Your task to perform on an android device: open app "Pandora - Music & Podcasts" (install if not already installed) Image 0: 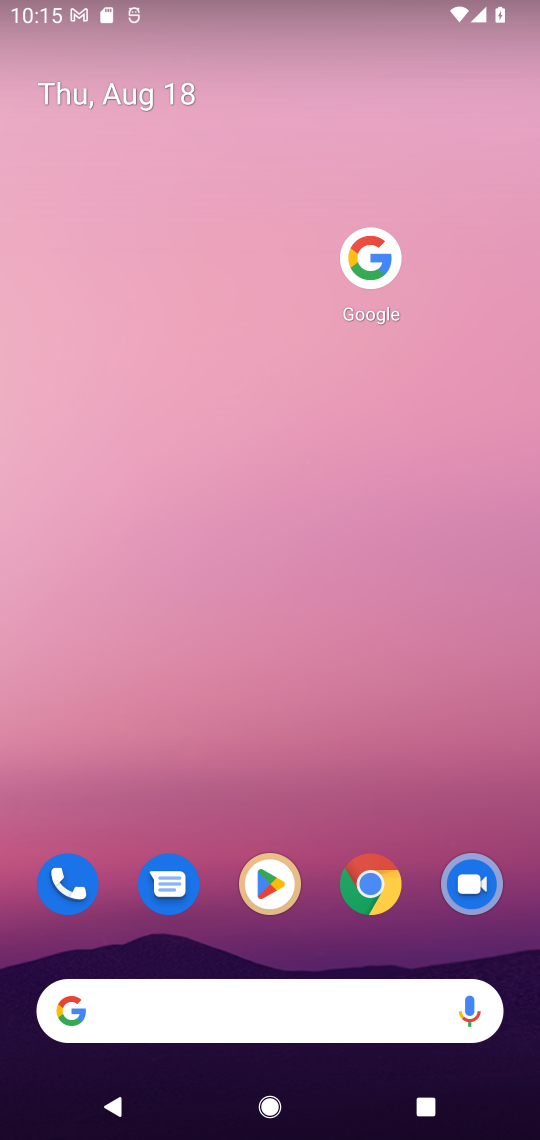
Step 0: task complete